Your task to perform on an android device: toggle javascript in the chrome app Image 0: 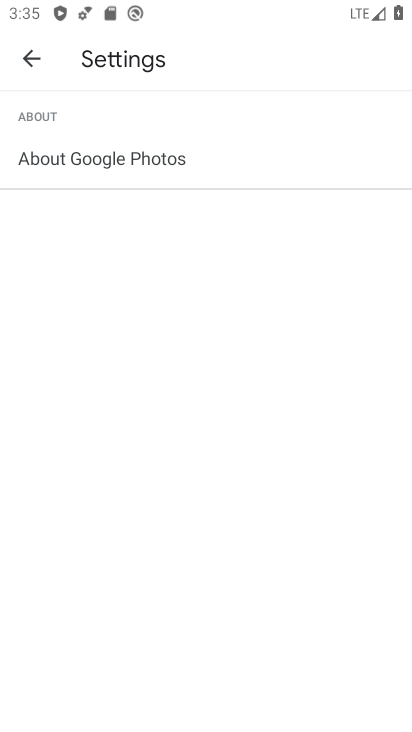
Step 0: press home button
Your task to perform on an android device: toggle javascript in the chrome app Image 1: 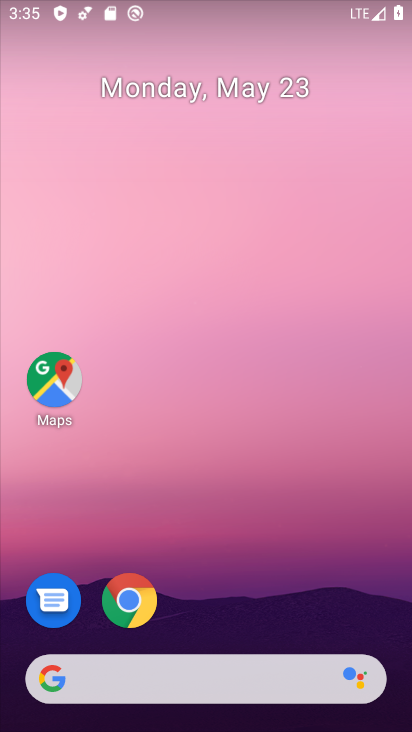
Step 1: click (131, 607)
Your task to perform on an android device: toggle javascript in the chrome app Image 2: 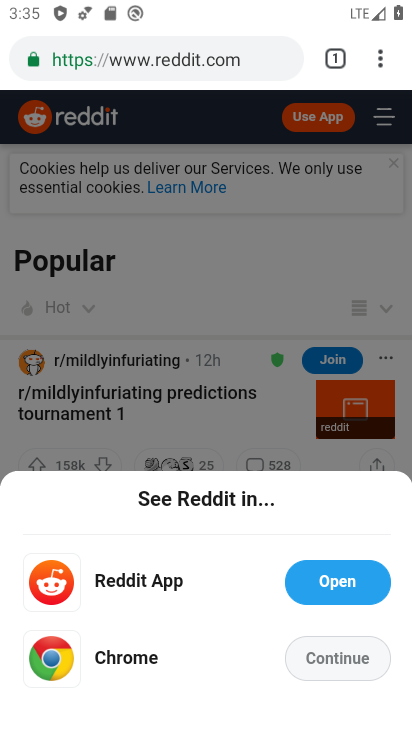
Step 2: click (374, 57)
Your task to perform on an android device: toggle javascript in the chrome app Image 3: 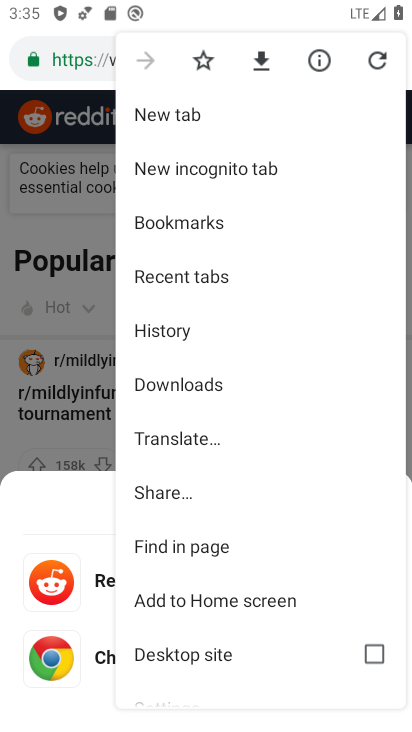
Step 3: drag from (292, 620) to (317, 299)
Your task to perform on an android device: toggle javascript in the chrome app Image 4: 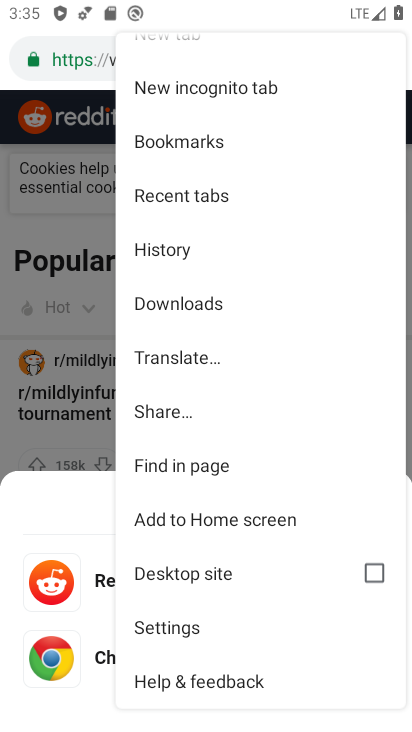
Step 4: click (175, 628)
Your task to perform on an android device: toggle javascript in the chrome app Image 5: 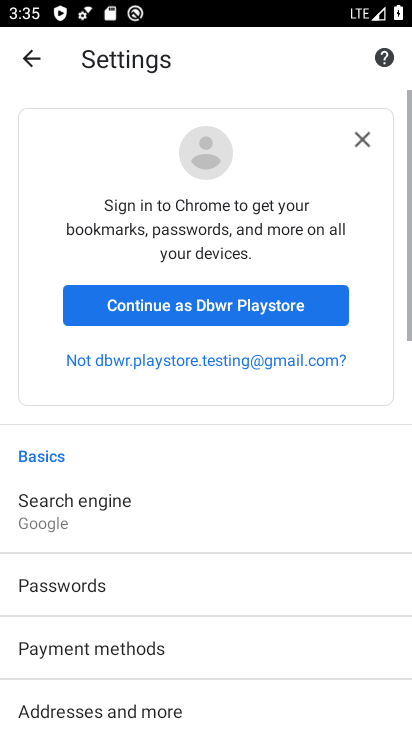
Step 5: drag from (175, 628) to (188, 214)
Your task to perform on an android device: toggle javascript in the chrome app Image 6: 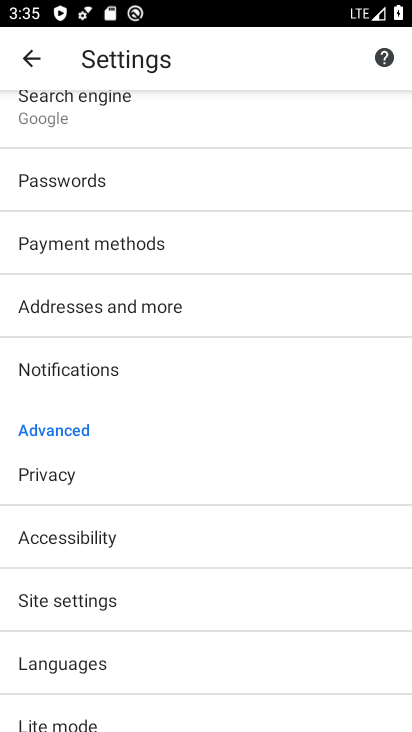
Step 6: click (102, 604)
Your task to perform on an android device: toggle javascript in the chrome app Image 7: 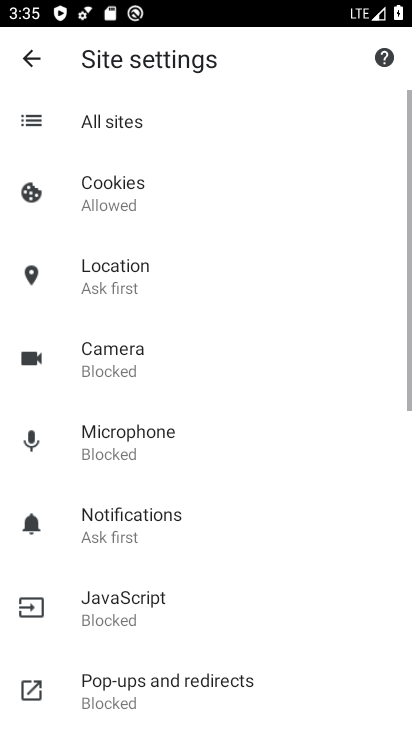
Step 7: click (124, 617)
Your task to perform on an android device: toggle javascript in the chrome app Image 8: 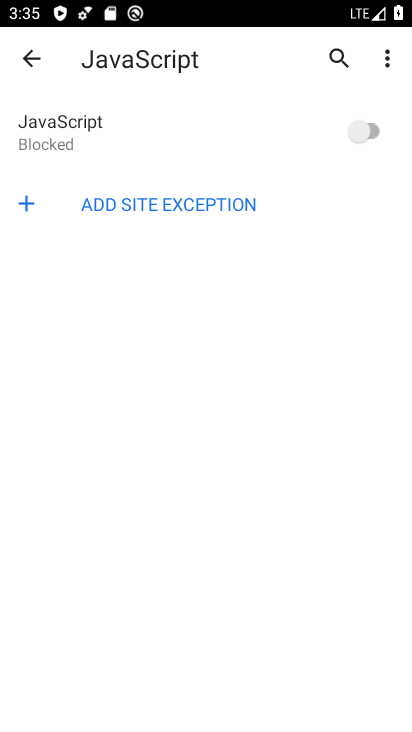
Step 8: click (354, 130)
Your task to perform on an android device: toggle javascript in the chrome app Image 9: 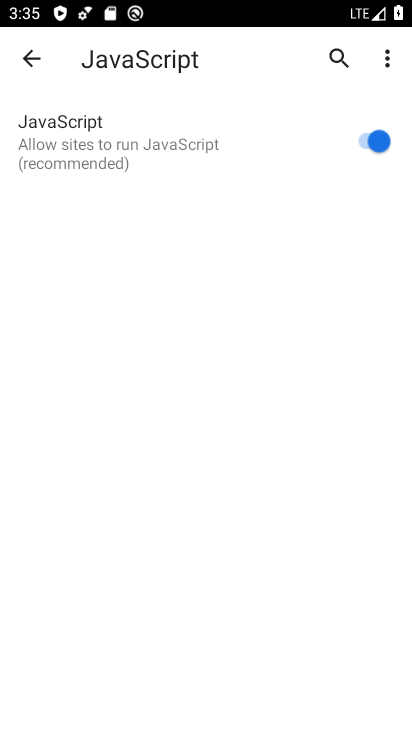
Step 9: task complete